Your task to perform on an android device: toggle show notifications on the lock screen Image 0: 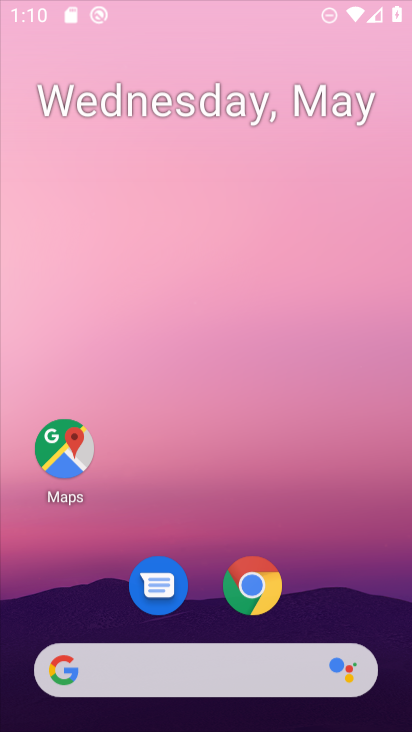
Step 0: drag from (327, 579) to (269, 161)
Your task to perform on an android device: toggle show notifications on the lock screen Image 1: 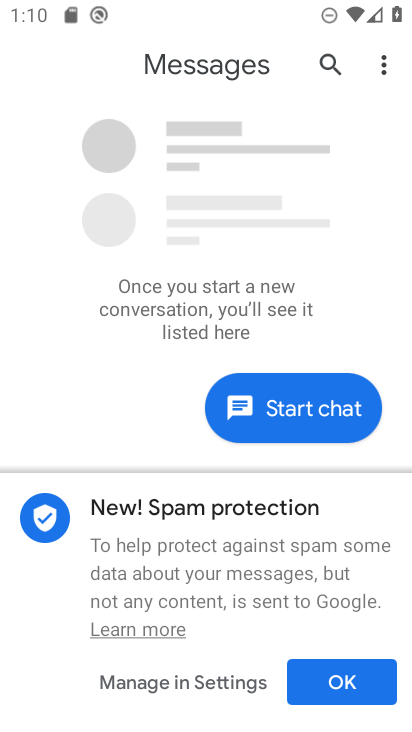
Step 1: press home button
Your task to perform on an android device: toggle show notifications on the lock screen Image 2: 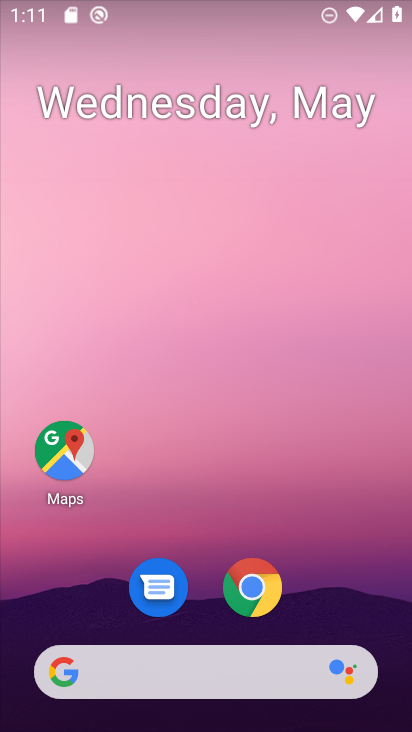
Step 2: click (244, 608)
Your task to perform on an android device: toggle show notifications on the lock screen Image 3: 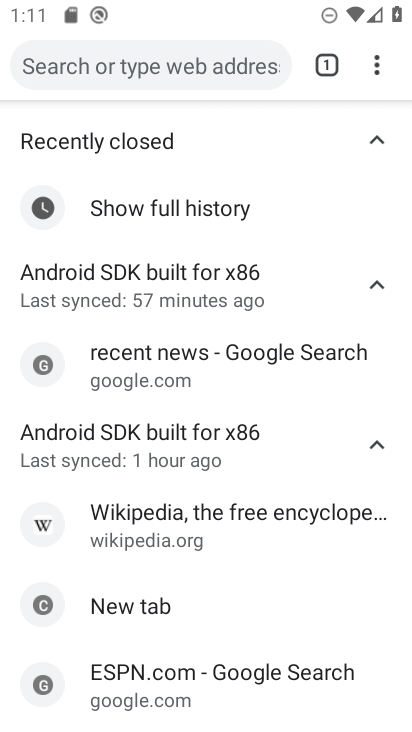
Step 3: press home button
Your task to perform on an android device: toggle show notifications on the lock screen Image 4: 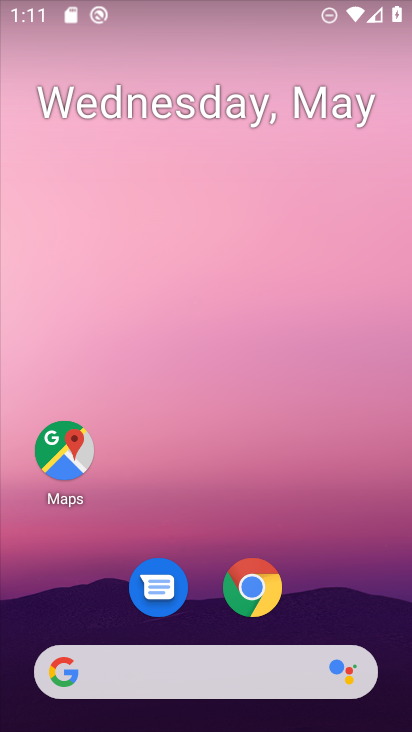
Step 4: drag from (322, 609) to (295, 330)
Your task to perform on an android device: toggle show notifications on the lock screen Image 5: 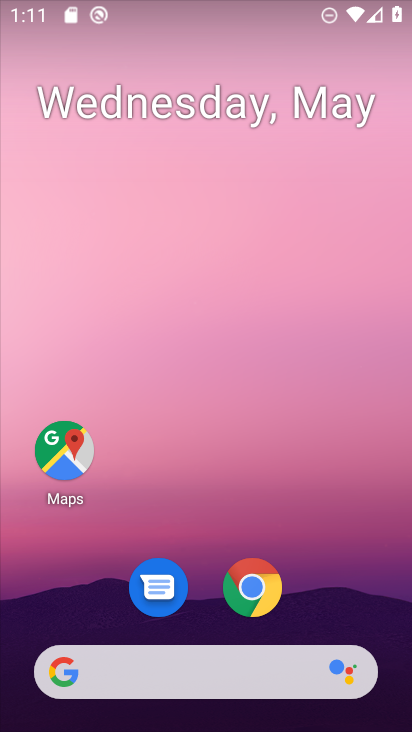
Step 5: drag from (306, 564) to (189, 193)
Your task to perform on an android device: toggle show notifications on the lock screen Image 6: 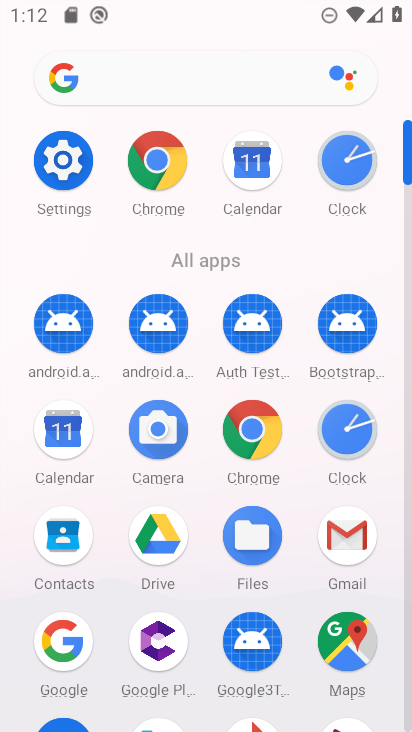
Step 6: click (66, 199)
Your task to perform on an android device: toggle show notifications on the lock screen Image 7: 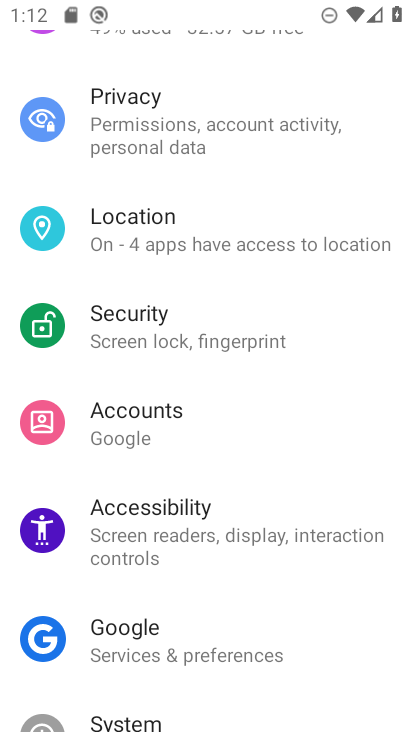
Step 7: drag from (175, 370) to (246, 685)
Your task to perform on an android device: toggle show notifications on the lock screen Image 8: 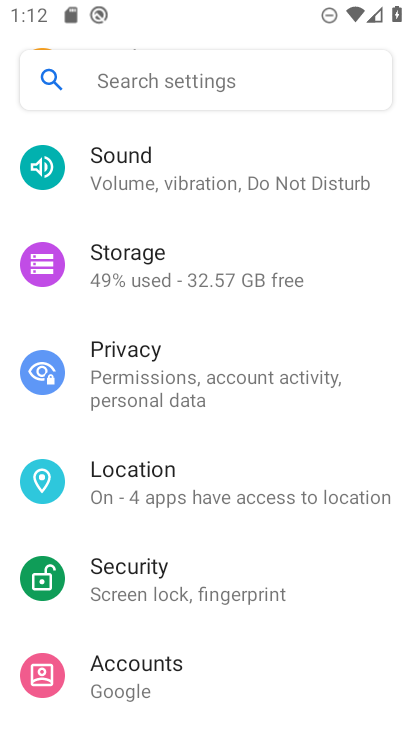
Step 8: drag from (108, 264) to (183, 502)
Your task to perform on an android device: toggle show notifications on the lock screen Image 9: 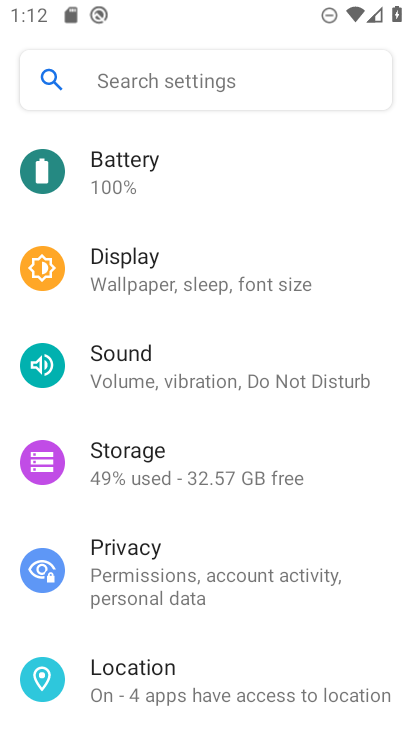
Step 9: drag from (217, 185) to (259, 505)
Your task to perform on an android device: toggle show notifications on the lock screen Image 10: 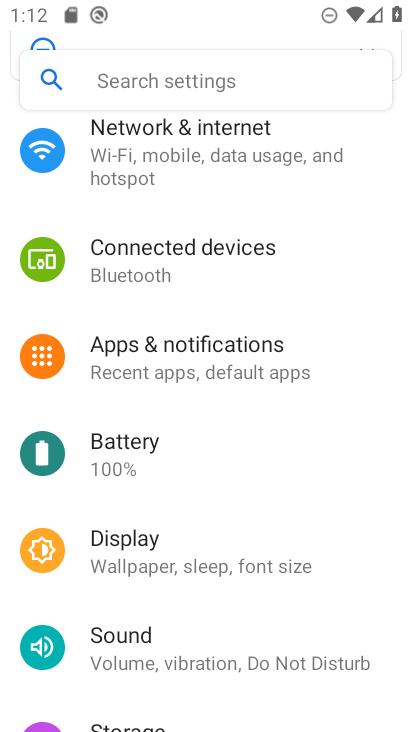
Step 10: click (205, 380)
Your task to perform on an android device: toggle show notifications on the lock screen Image 11: 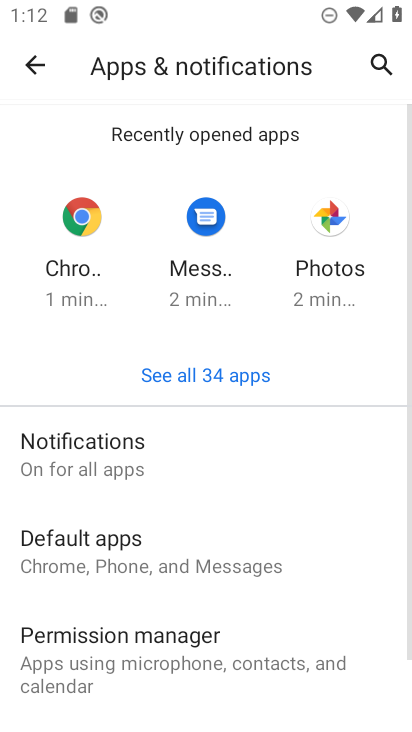
Step 11: click (123, 476)
Your task to perform on an android device: toggle show notifications on the lock screen Image 12: 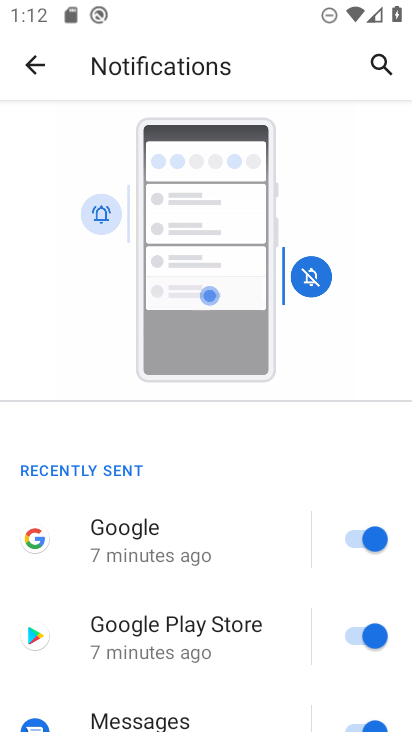
Step 12: drag from (152, 609) to (164, 291)
Your task to perform on an android device: toggle show notifications on the lock screen Image 13: 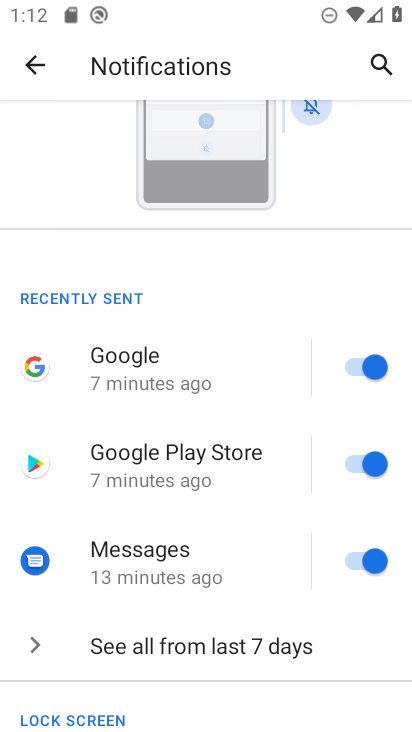
Step 13: drag from (173, 648) to (178, 317)
Your task to perform on an android device: toggle show notifications on the lock screen Image 14: 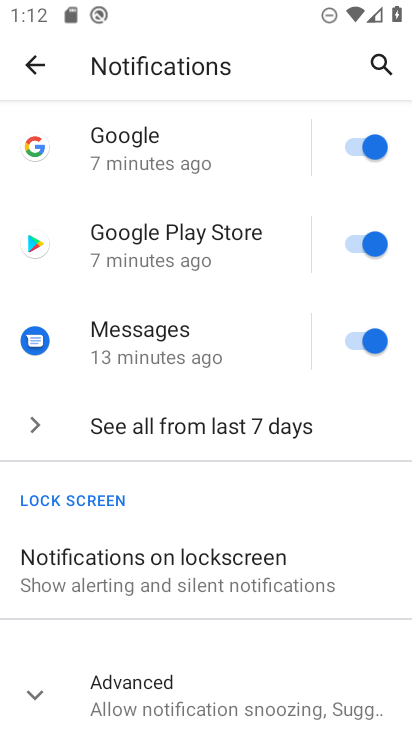
Step 14: click (169, 584)
Your task to perform on an android device: toggle show notifications on the lock screen Image 15: 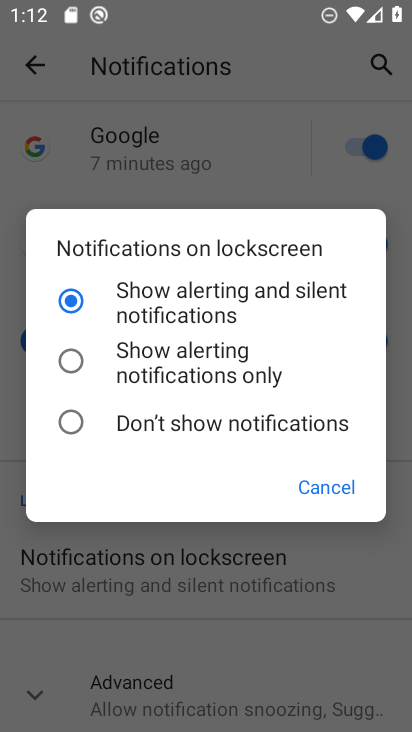
Step 15: click (57, 419)
Your task to perform on an android device: toggle show notifications on the lock screen Image 16: 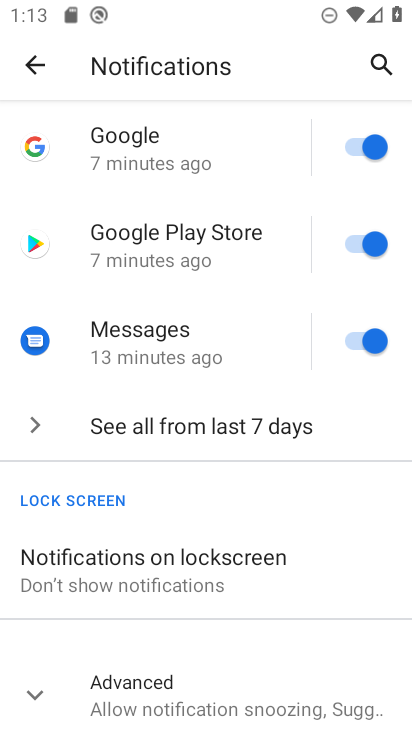
Step 16: click (135, 594)
Your task to perform on an android device: toggle show notifications on the lock screen Image 17: 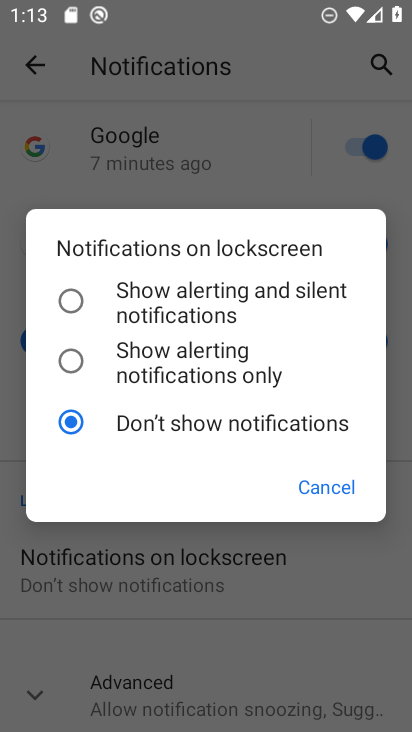
Step 17: task complete